Your task to perform on an android device: turn off location history Image 0: 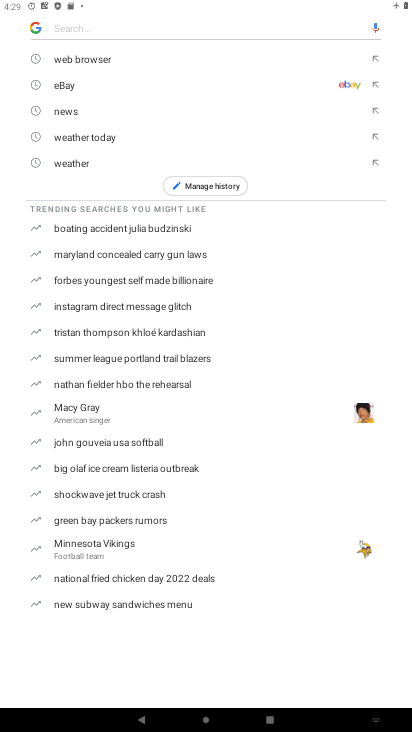
Step 0: press home button
Your task to perform on an android device: turn off location history Image 1: 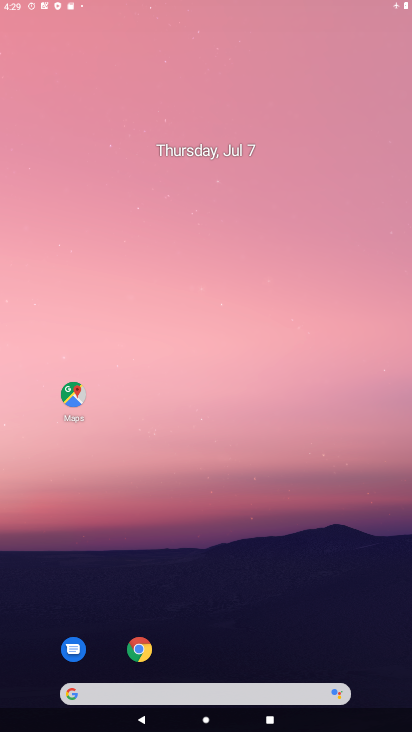
Step 1: drag from (390, 653) to (86, 12)
Your task to perform on an android device: turn off location history Image 2: 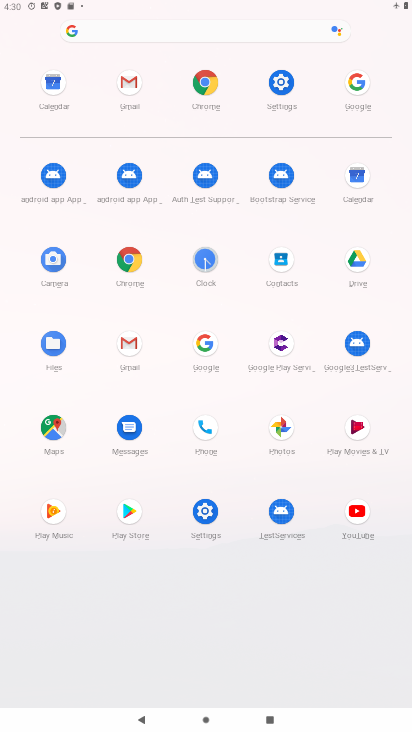
Step 2: click (290, 85)
Your task to perform on an android device: turn off location history Image 3: 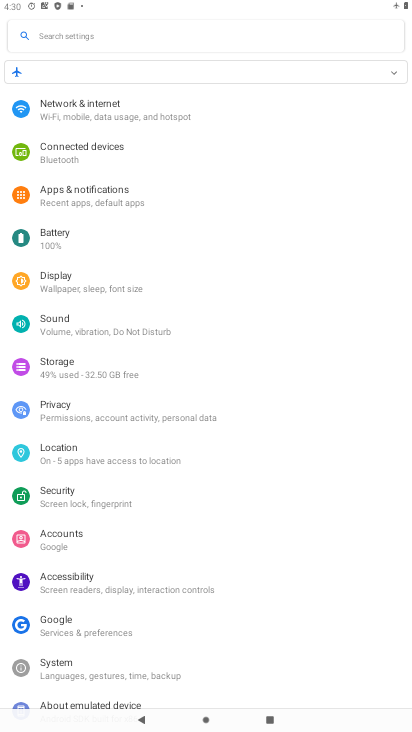
Step 3: click (88, 456)
Your task to perform on an android device: turn off location history Image 4: 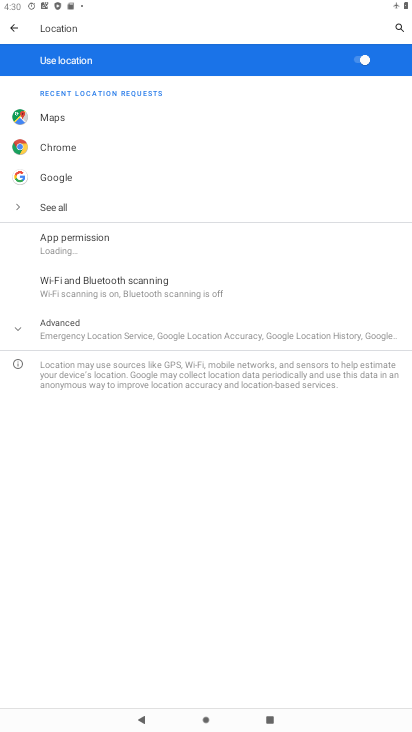
Step 4: click (88, 333)
Your task to perform on an android device: turn off location history Image 5: 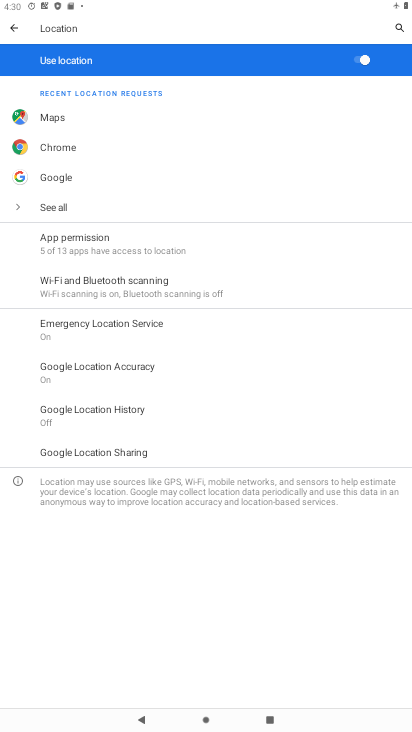
Step 5: click (139, 418)
Your task to perform on an android device: turn off location history Image 6: 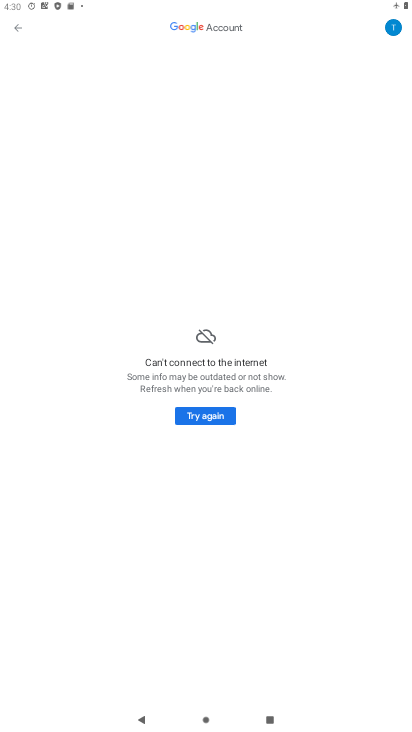
Step 6: task complete